Your task to perform on an android device: set the timer Image 0: 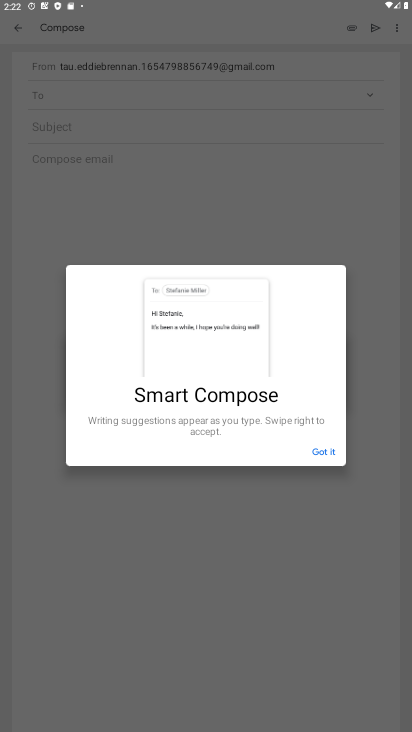
Step 0: press home button
Your task to perform on an android device: set the timer Image 1: 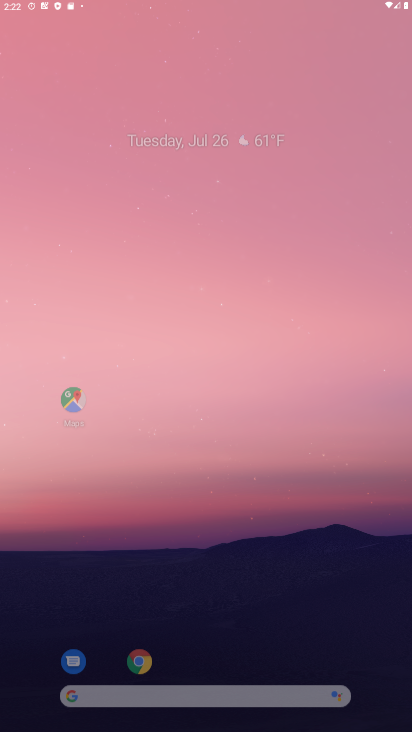
Step 1: drag from (97, 568) to (216, 30)
Your task to perform on an android device: set the timer Image 2: 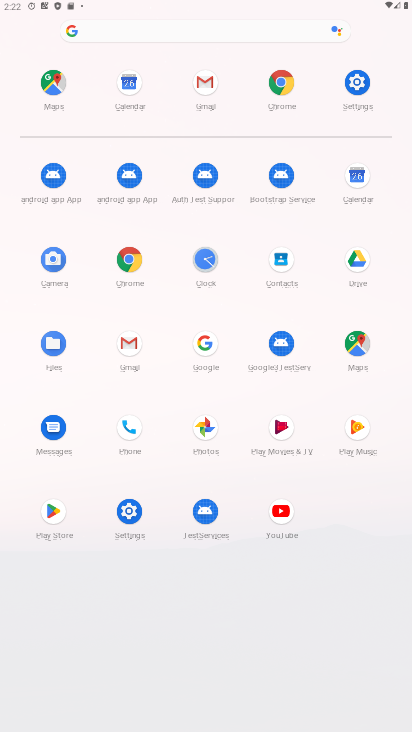
Step 2: click (206, 263)
Your task to perform on an android device: set the timer Image 3: 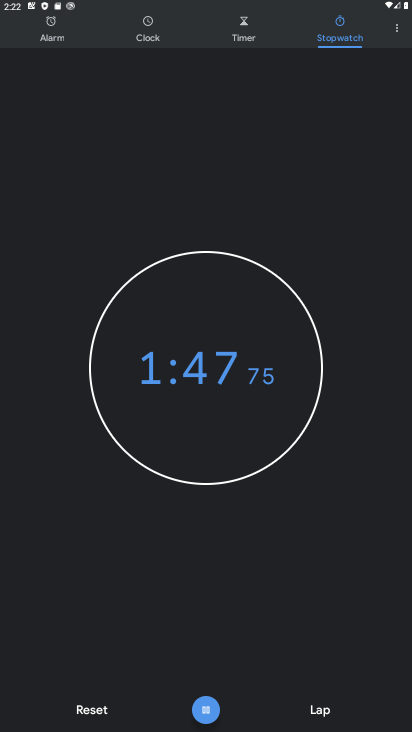
Step 3: click (90, 707)
Your task to perform on an android device: set the timer Image 4: 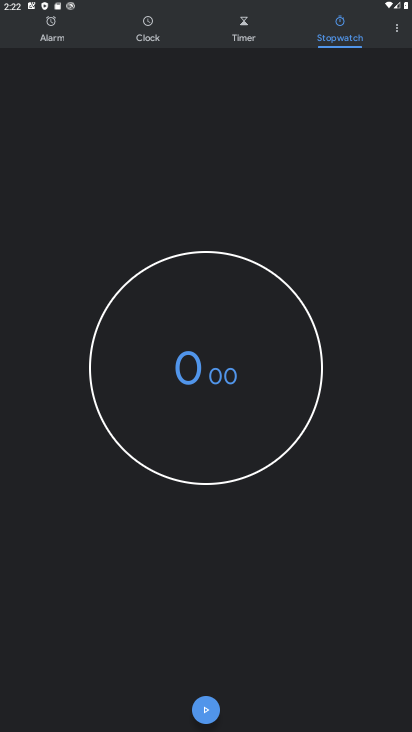
Step 4: click (395, 29)
Your task to perform on an android device: set the timer Image 5: 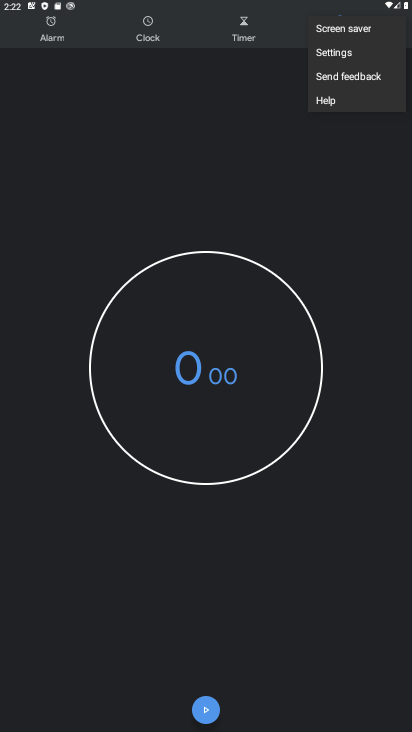
Step 5: click (250, 19)
Your task to perform on an android device: set the timer Image 6: 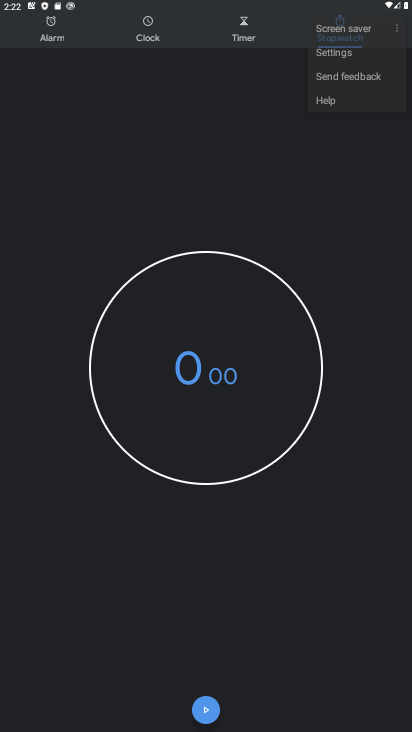
Step 6: click (250, 19)
Your task to perform on an android device: set the timer Image 7: 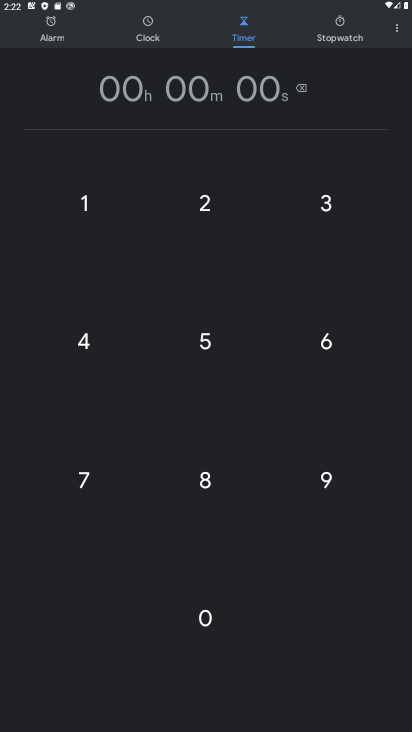
Step 7: click (222, 201)
Your task to perform on an android device: set the timer Image 8: 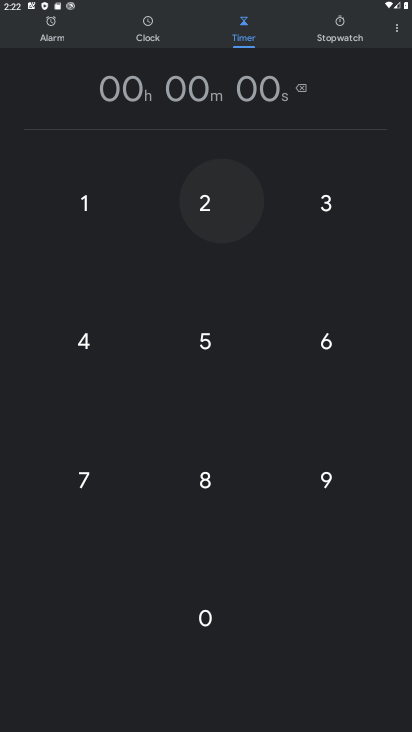
Step 8: click (231, 282)
Your task to perform on an android device: set the timer Image 9: 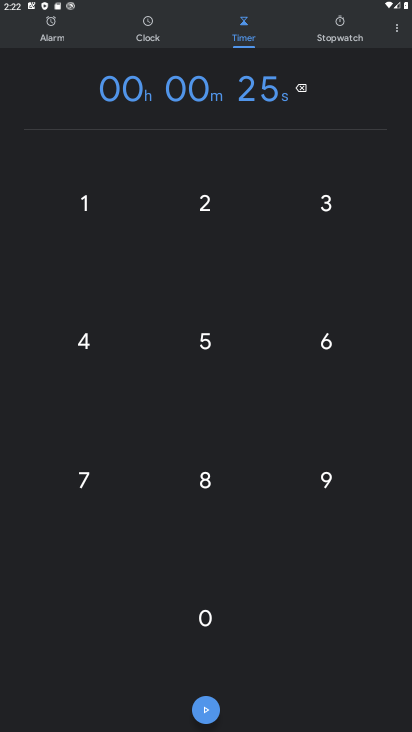
Step 9: click (200, 710)
Your task to perform on an android device: set the timer Image 10: 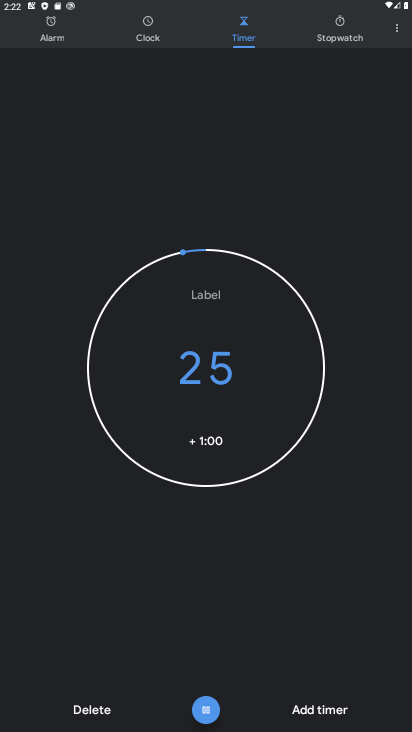
Step 10: task complete